Your task to perform on an android device: see creations saved in the google photos Image 0: 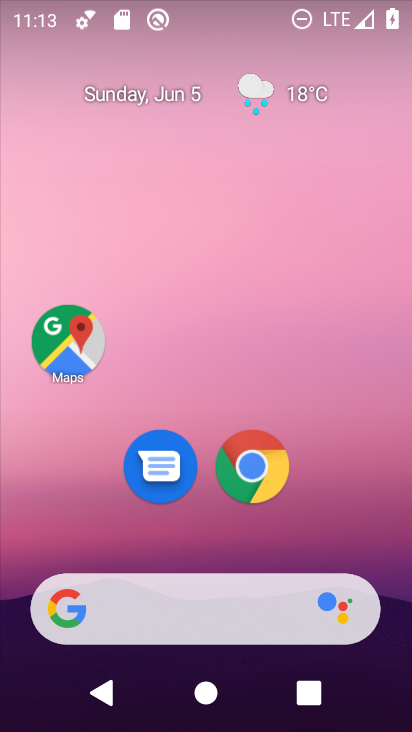
Step 0: drag from (335, 494) to (229, 22)
Your task to perform on an android device: see creations saved in the google photos Image 1: 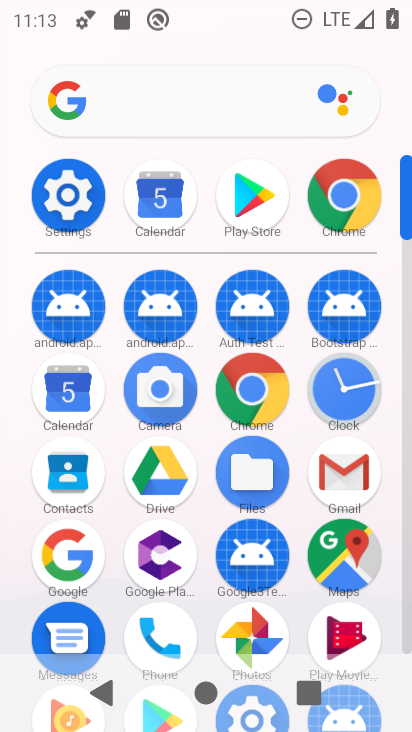
Step 1: drag from (3, 547) to (5, 285)
Your task to perform on an android device: see creations saved in the google photos Image 2: 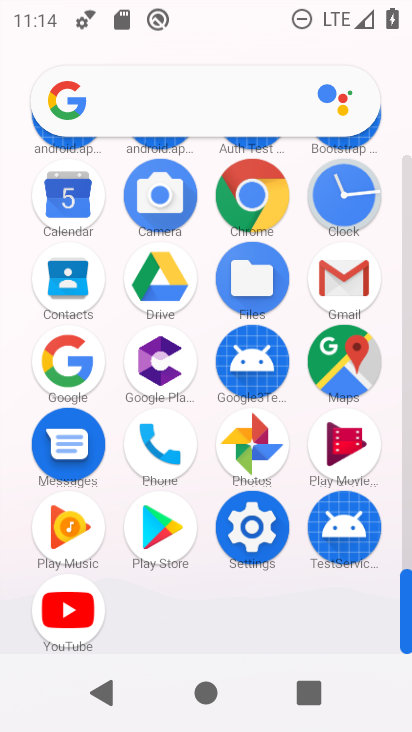
Step 2: click (252, 443)
Your task to perform on an android device: see creations saved in the google photos Image 3: 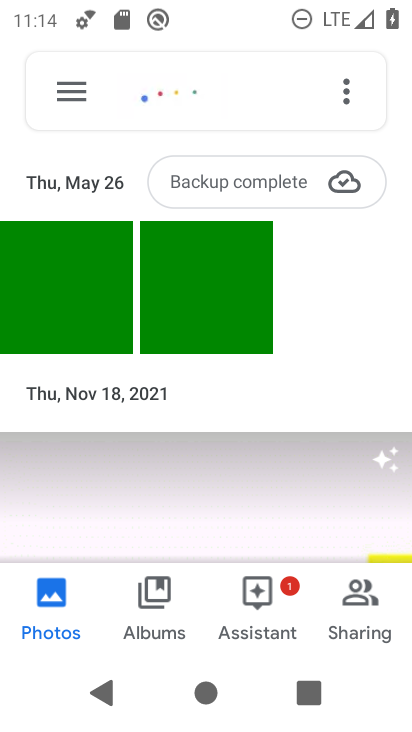
Step 3: task complete